Your task to perform on an android device: Go to notification settings Image 0: 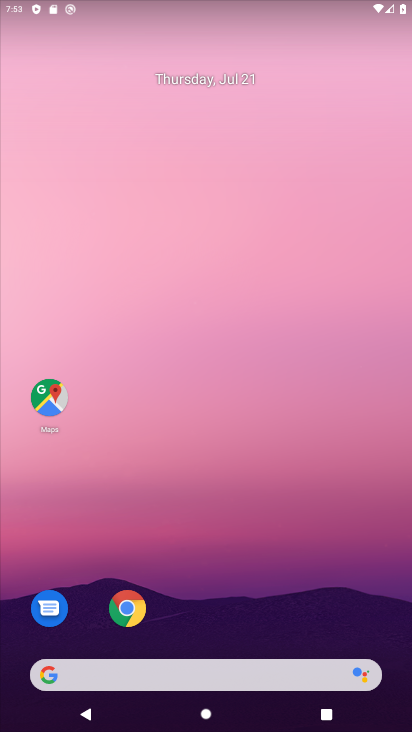
Step 0: press home button
Your task to perform on an android device: Go to notification settings Image 1: 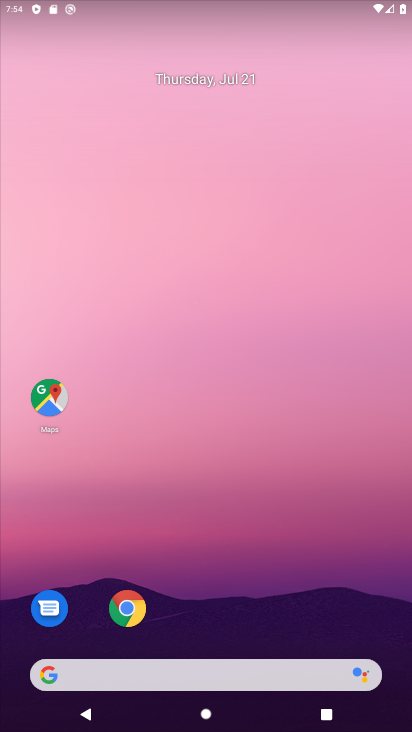
Step 1: drag from (209, 646) to (194, 33)
Your task to perform on an android device: Go to notification settings Image 2: 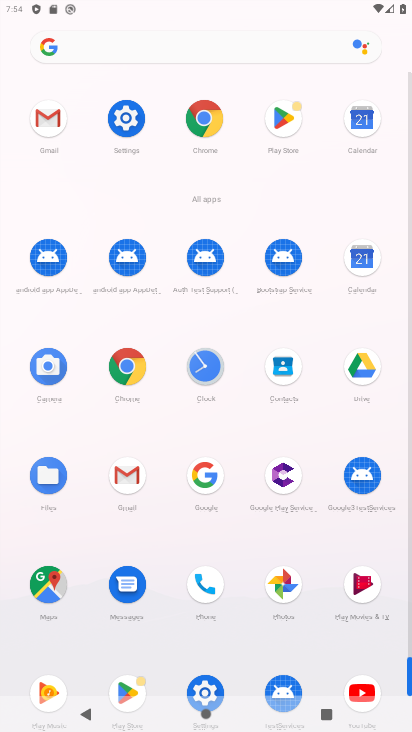
Step 2: click (123, 112)
Your task to perform on an android device: Go to notification settings Image 3: 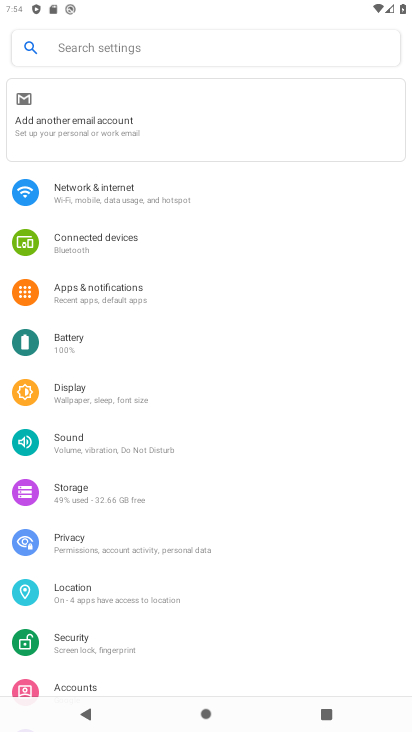
Step 3: click (153, 290)
Your task to perform on an android device: Go to notification settings Image 4: 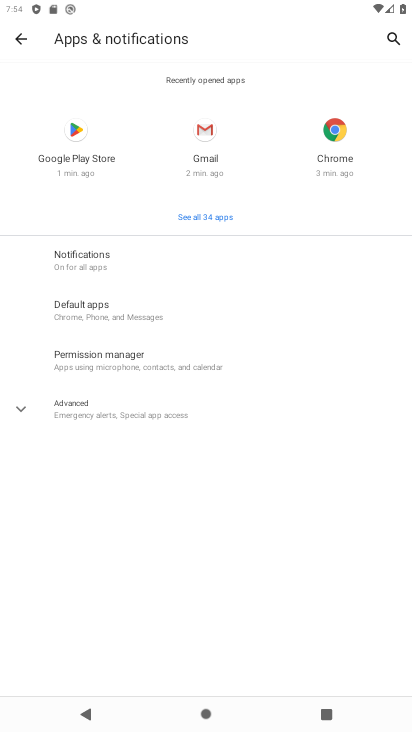
Step 4: click (122, 253)
Your task to perform on an android device: Go to notification settings Image 5: 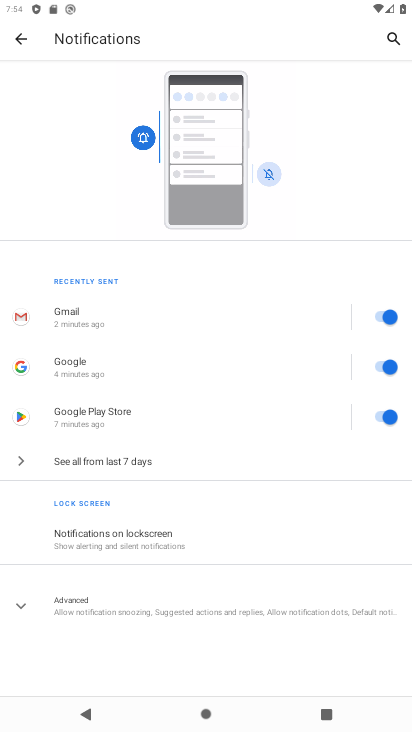
Step 5: click (25, 602)
Your task to perform on an android device: Go to notification settings Image 6: 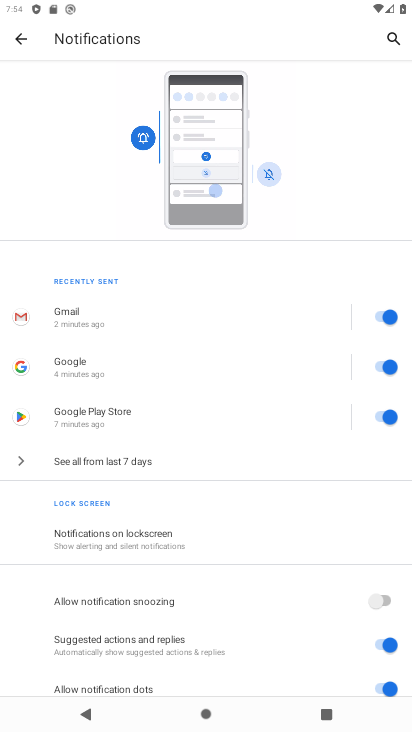
Step 6: task complete